Your task to perform on an android device: turn on airplane mode Image 0: 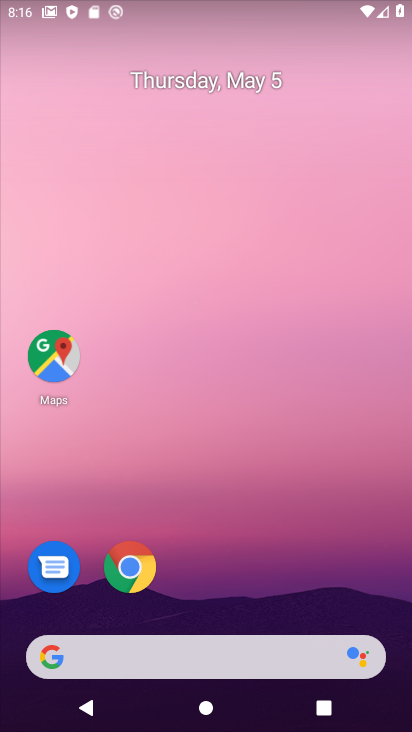
Step 0: drag from (207, 635) to (169, 202)
Your task to perform on an android device: turn on airplane mode Image 1: 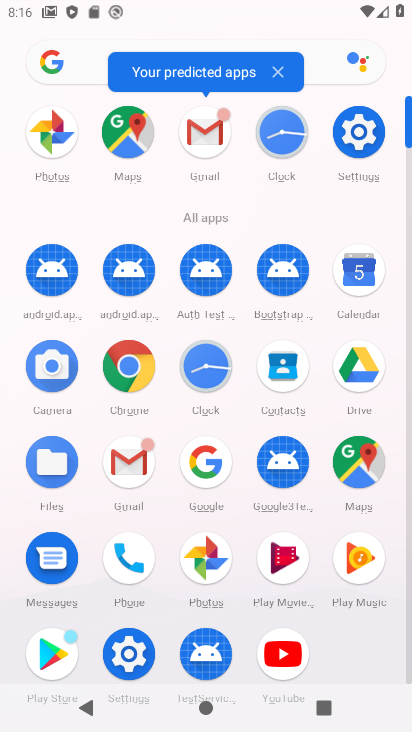
Step 1: click (357, 145)
Your task to perform on an android device: turn on airplane mode Image 2: 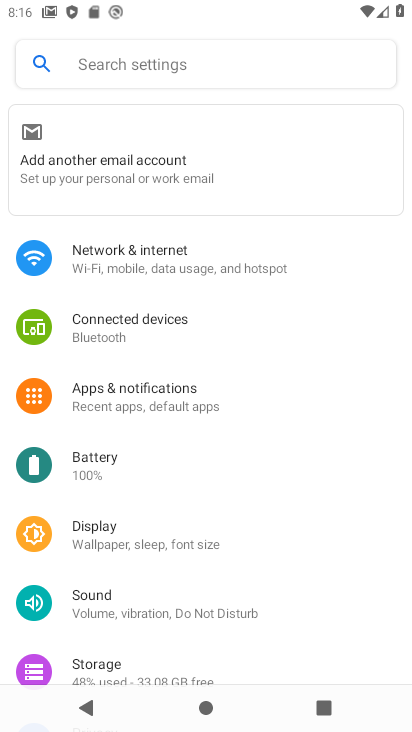
Step 2: click (224, 268)
Your task to perform on an android device: turn on airplane mode Image 3: 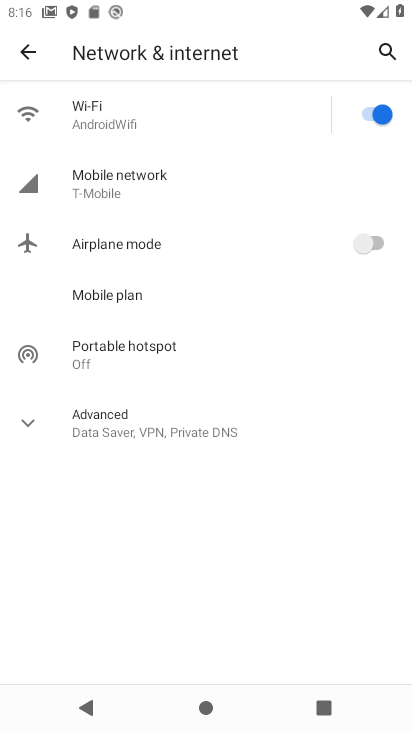
Step 3: click (366, 245)
Your task to perform on an android device: turn on airplane mode Image 4: 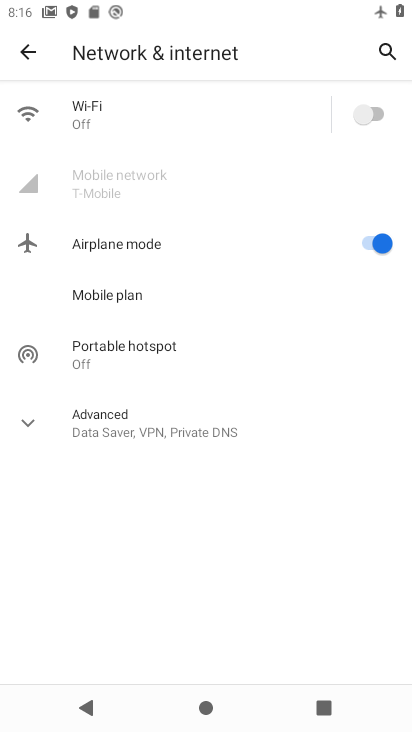
Step 4: task complete